Your task to perform on an android device: turn off notifications settings in the gmail app Image 0: 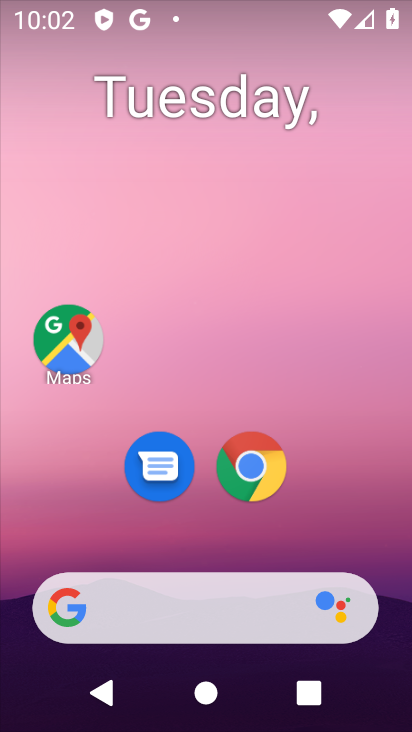
Step 0: drag from (327, 466) to (143, 91)
Your task to perform on an android device: turn off notifications settings in the gmail app Image 1: 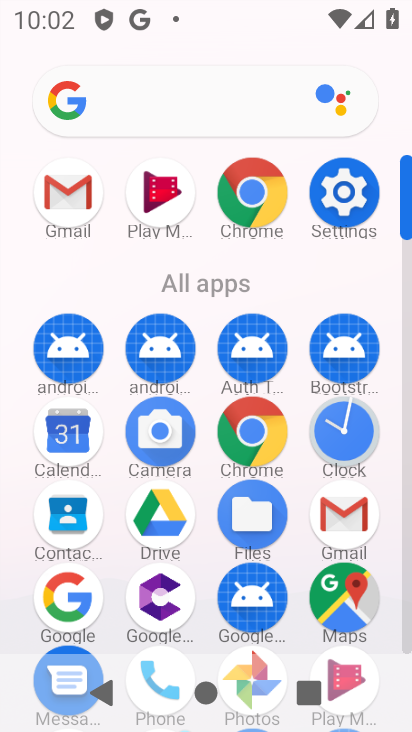
Step 1: click (77, 187)
Your task to perform on an android device: turn off notifications settings in the gmail app Image 2: 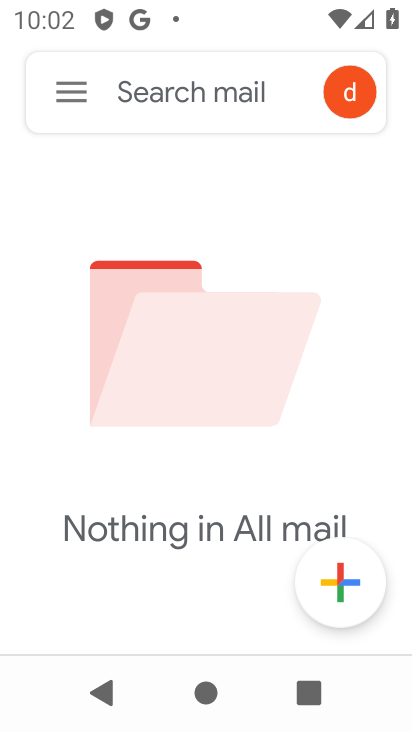
Step 2: click (70, 81)
Your task to perform on an android device: turn off notifications settings in the gmail app Image 3: 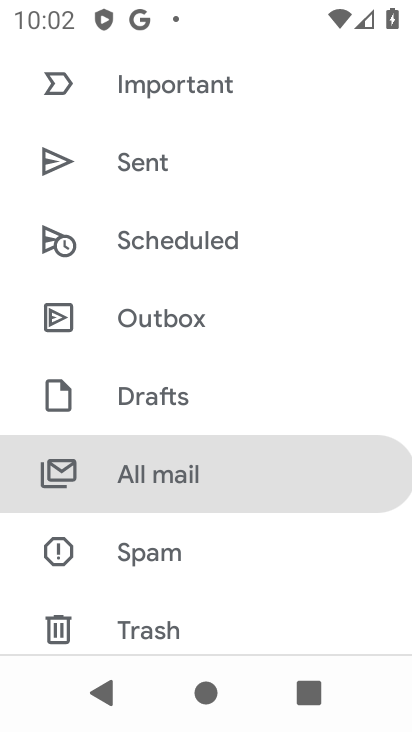
Step 3: drag from (212, 610) to (147, 78)
Your task to perform on an android device: turn off notifications settings in the gmail app Image 4: 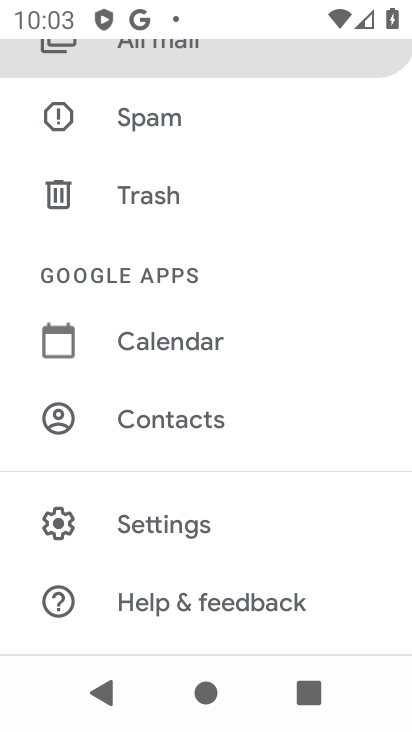
Step 4: click (159, 527)
Your task to perform on an android device: turn off notifications settings in the gmail app Image 5: 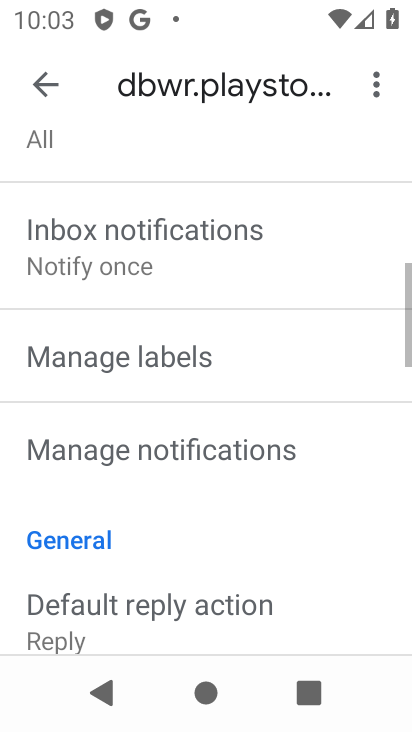
Step 5: drag from (171, 210) to (174, 262)
Your task to perform on an android device: turn off notifications settings in the gmail app Image 6: 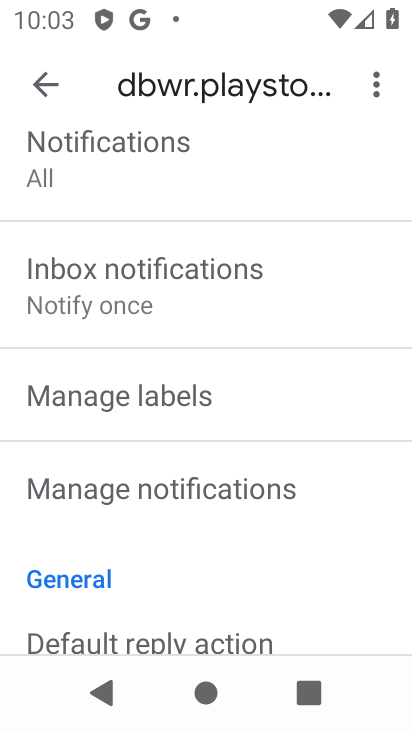
Step 6: click (190, 485)
Your task to perform on an android device: turn off notifications settings in the gmail app Image 7: 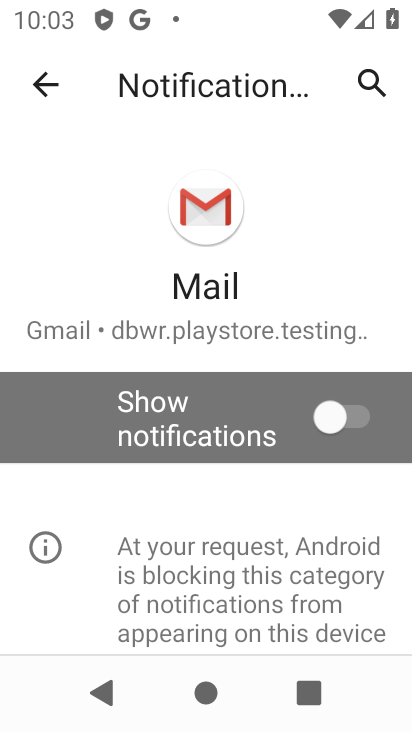
Step 7: task complete